Your task to perform on an android device: all mails in gmail Image 0: 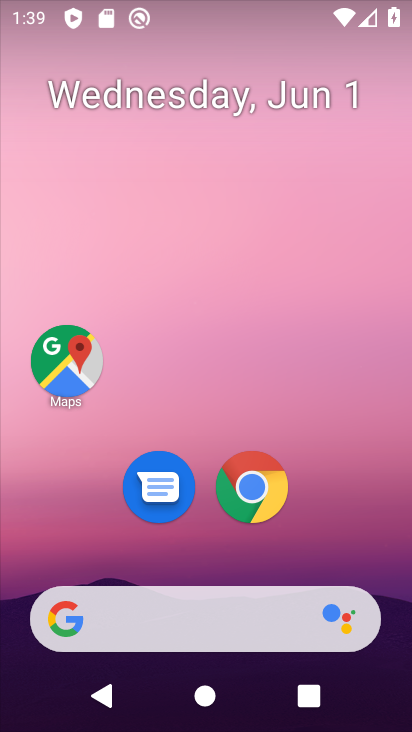
Step 0: drag from (390, 562) to (371, 140)
Your task to perform on an android device: all mails in gmail Image 1: 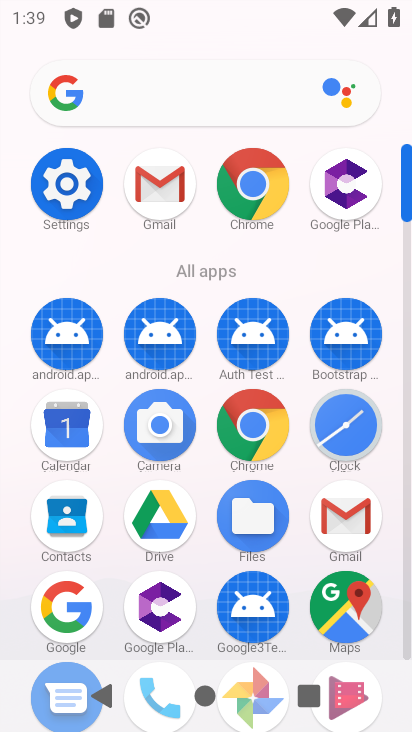
Step 1: click (144, 189)
Your task to perform on an android device: all mails in gmail Image 2: 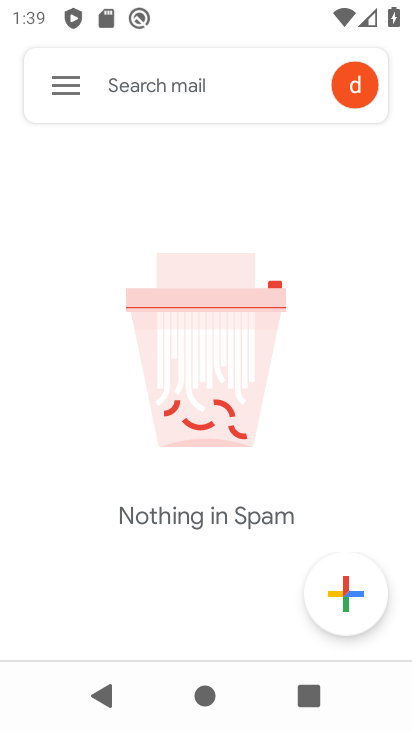
Step 2: click (66, 105)
Your task to perform on an android device: all mails in gmail Image 3: 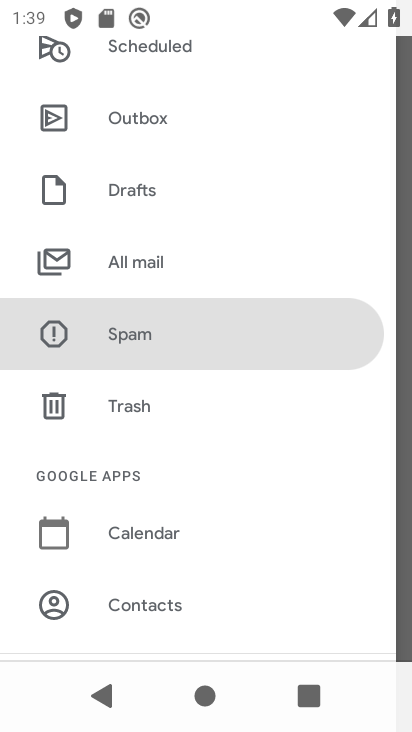
Step 3: drag from (286, 183) to (304, 329)
Your task to perform on an android device: all mails in gmail Image 4: 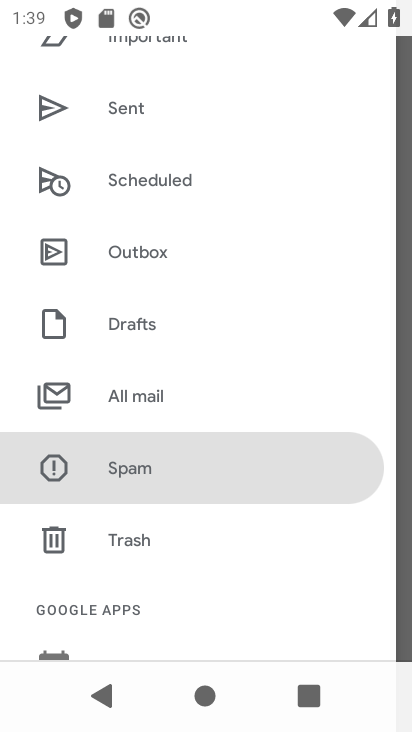
Step 4: drag from (304, 143) to (309, 300)
Your task to perform on an android device: all mails in gmail Image 5: 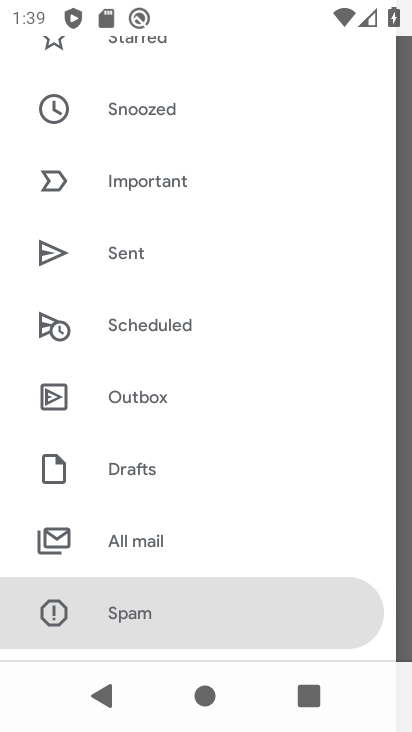
Step 5: drag from (314, 157) to (320, 335)
Your task to perform on an android device: all mails in gmail Image 6: 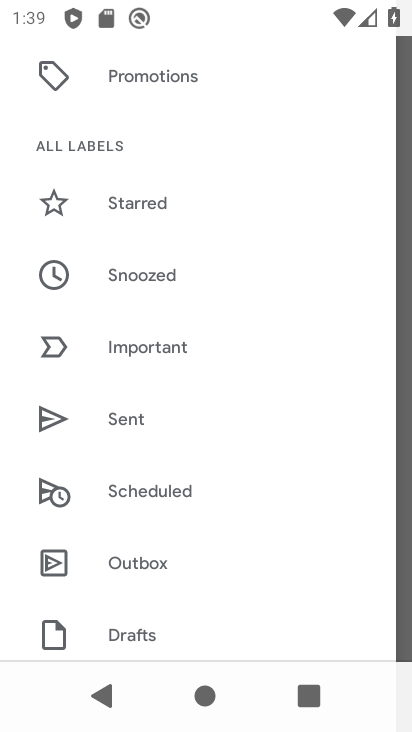
Step 6: drag from (310, 175) to (317, 359)
Your task to perform on an android device: all mails in gmail Image 7: 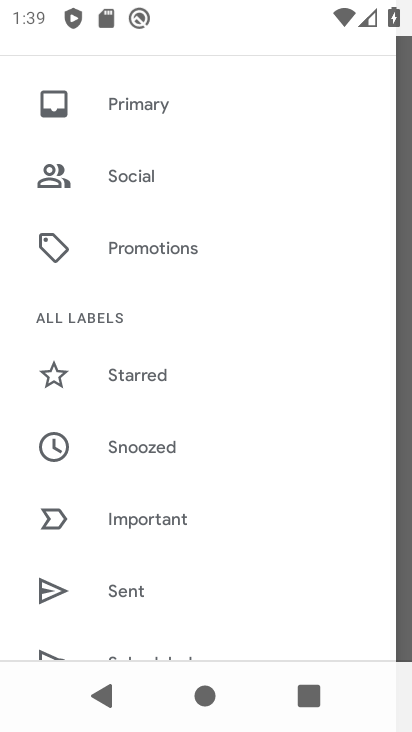
Step 7: drag from (305, 131) to (309, 231)
Your task to perform on an android device: all mails in gmail Image 8: 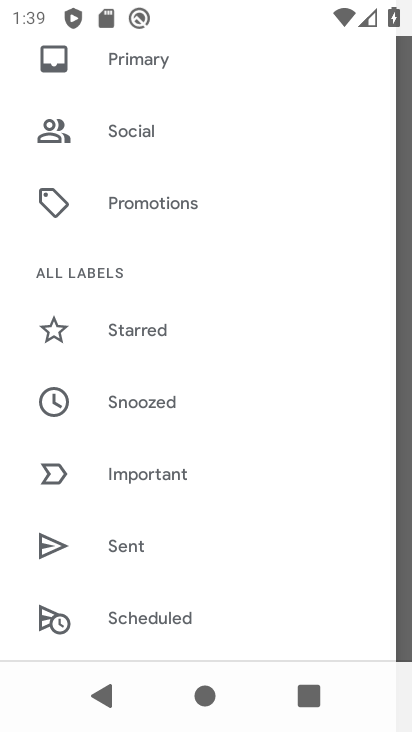
Step 8: drag from (300, 335) to (302, 176)
Your task to perform on an android device: all mails in gmail Image 9: 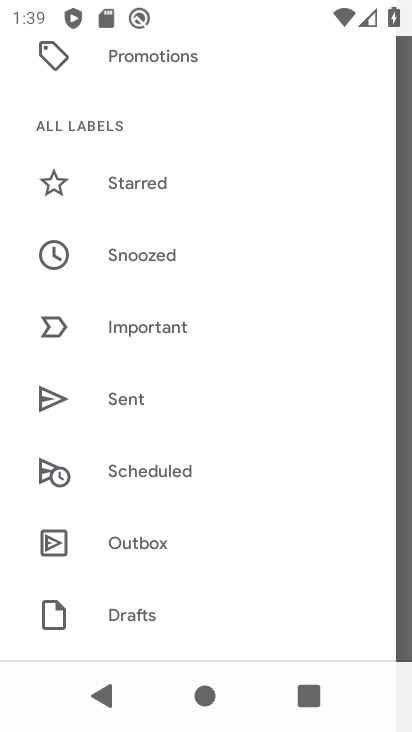
Step 9: drag from (302, 269) to (301, 154)
Your task to perform on an android device: all mails in gmail Image 10: 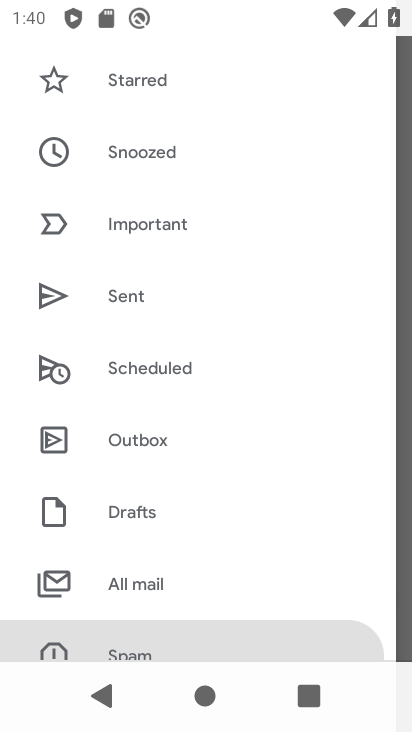
Step 10: drag from (310, 292) to (319, 172)
Your task to perform on an android device: all mails in gmail Image 11: 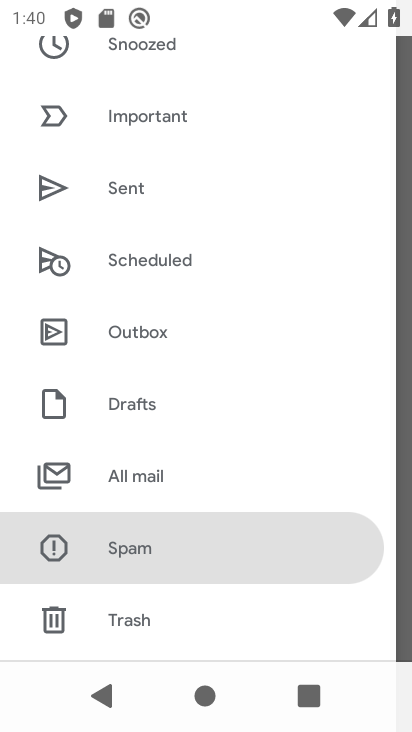
Step 11: drag from (316, 389) to (313, 203)
Your task to perform on an android device: all mails in gmail Image 12: 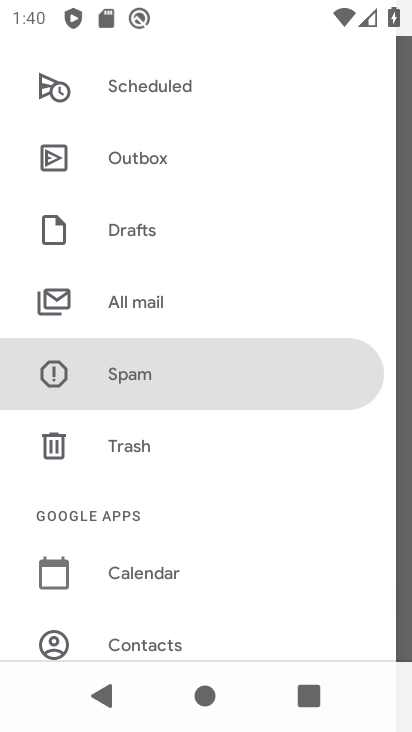
Step 12: click (174, 307)
Your task to perform on an android device: all mails in gmail Image 13: 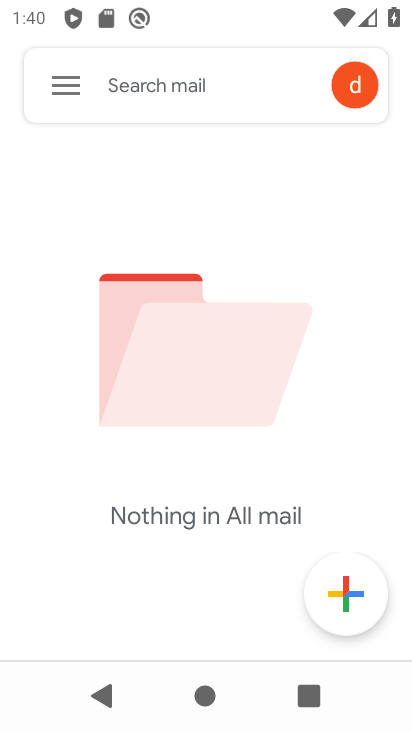
Step 13: task complete